Your task to perform on an android device: add a contact in the contacts app Image 0: 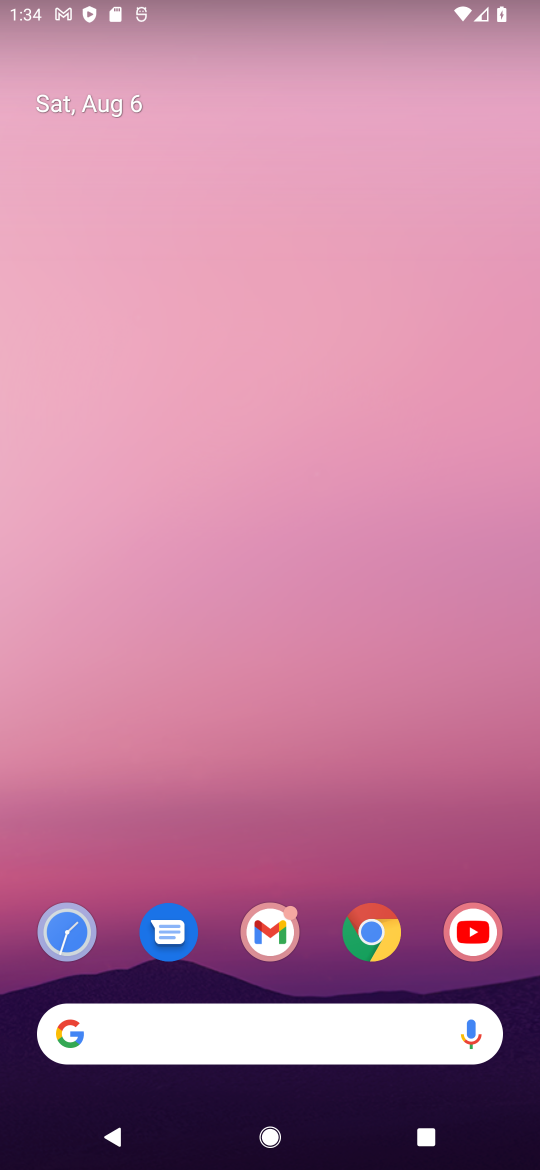
Step 0: drag from (252, 764) to (336, 64)
Your task to perform on an android device: add a contact in the contacts app Image 1: 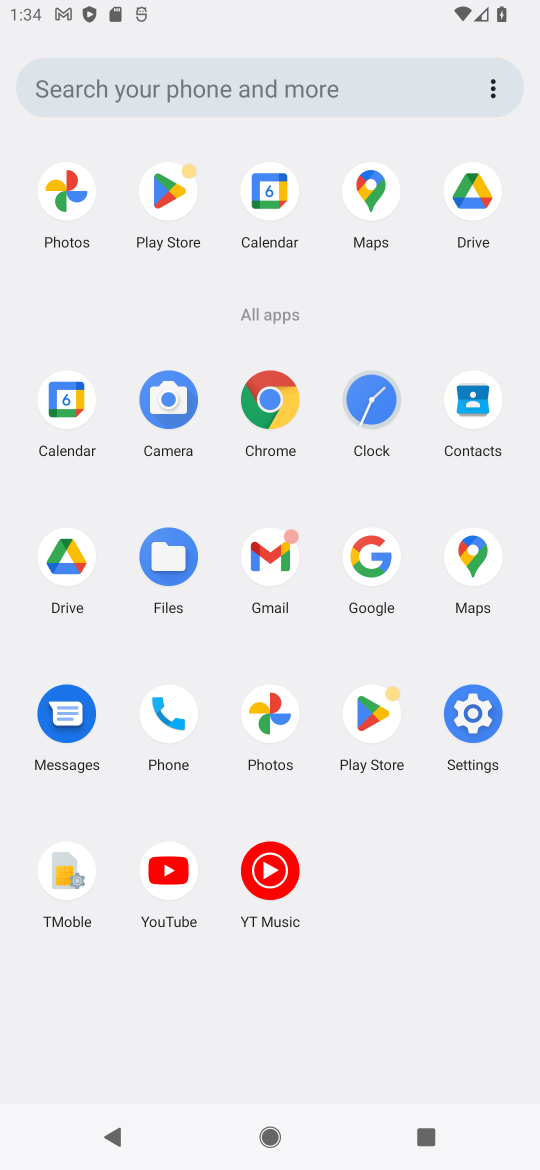
Step 1: click (475, 377)
Your task to perform on an android device: add a contact in the contacts app Image 2: 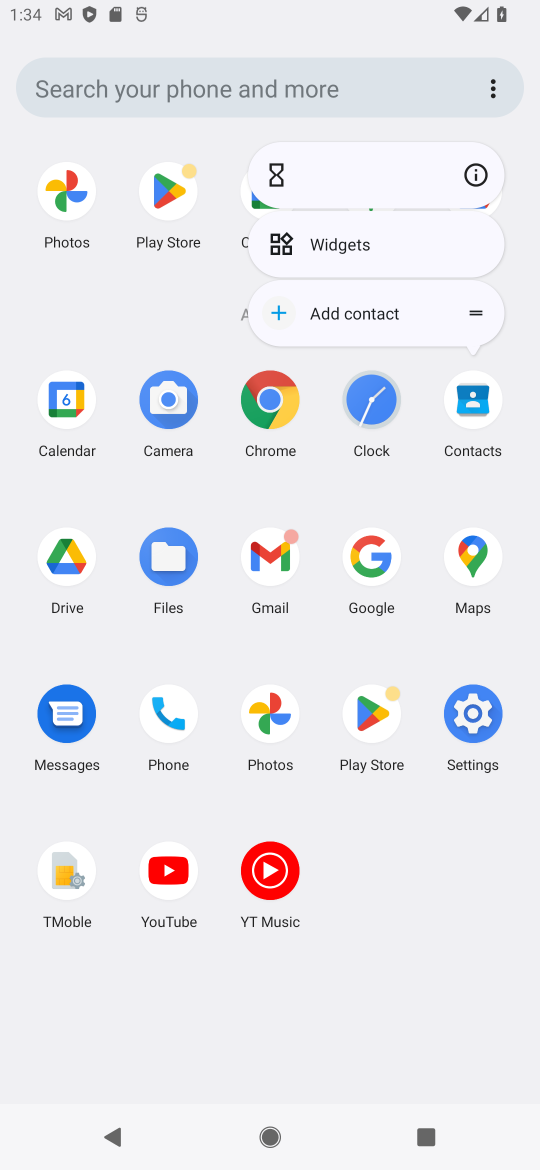
Step 2: click (478, 393)
Your task to perform on an android device: add a contact in the contacts app Image 3: 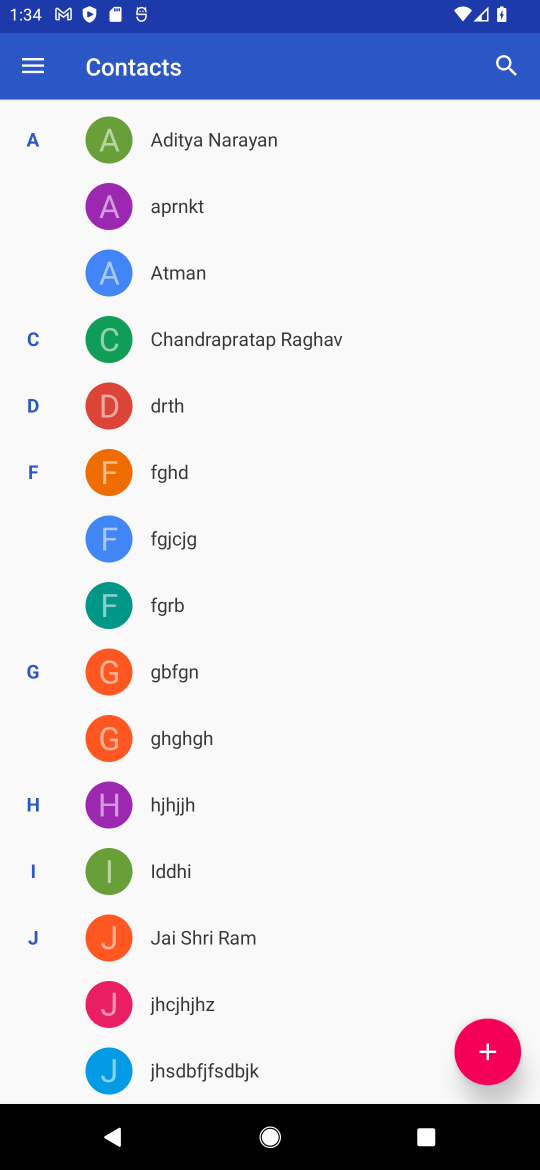
Step 3: click (503, 1026)
Your task to perform on an android device: add a contact in the contacts app Image 4: 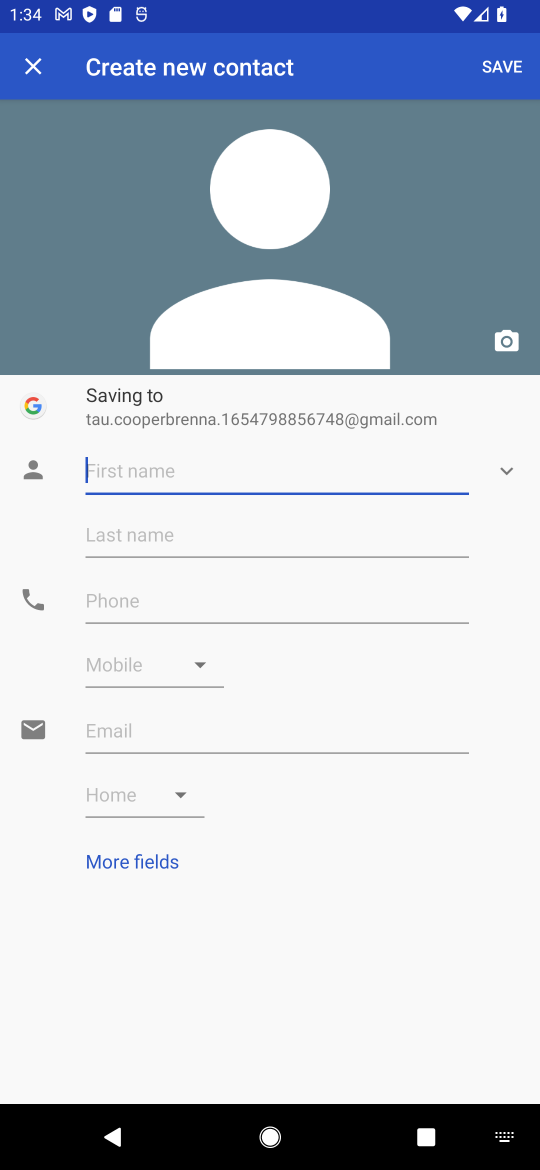
Step 4: click (176, 462)
Your task to perform on an android device: add a contact in the contacts app Image 5: 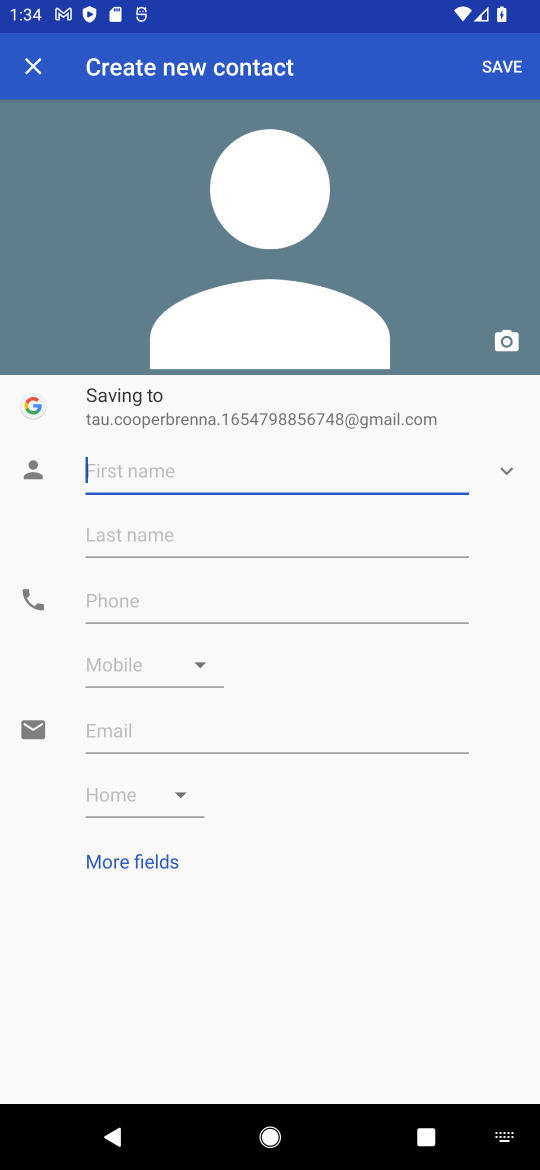
Step 5: type "9988"
Your task to perform on an android device: add a contact in the contacts app Image 6: 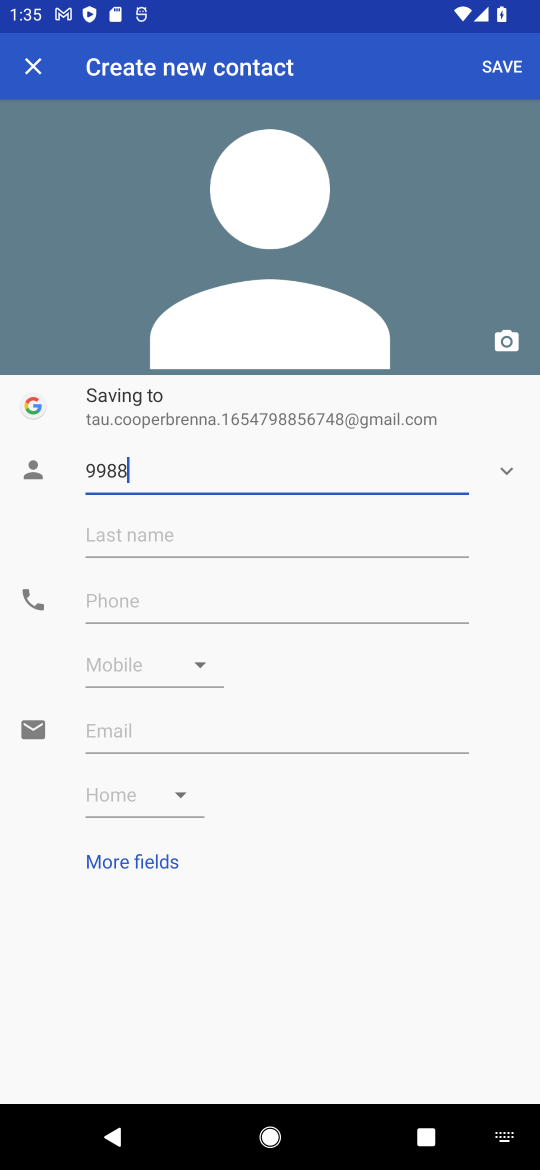
Step 6: type "rak"
Your task to perform on an android device: add a contact in the contacts app Image 7: 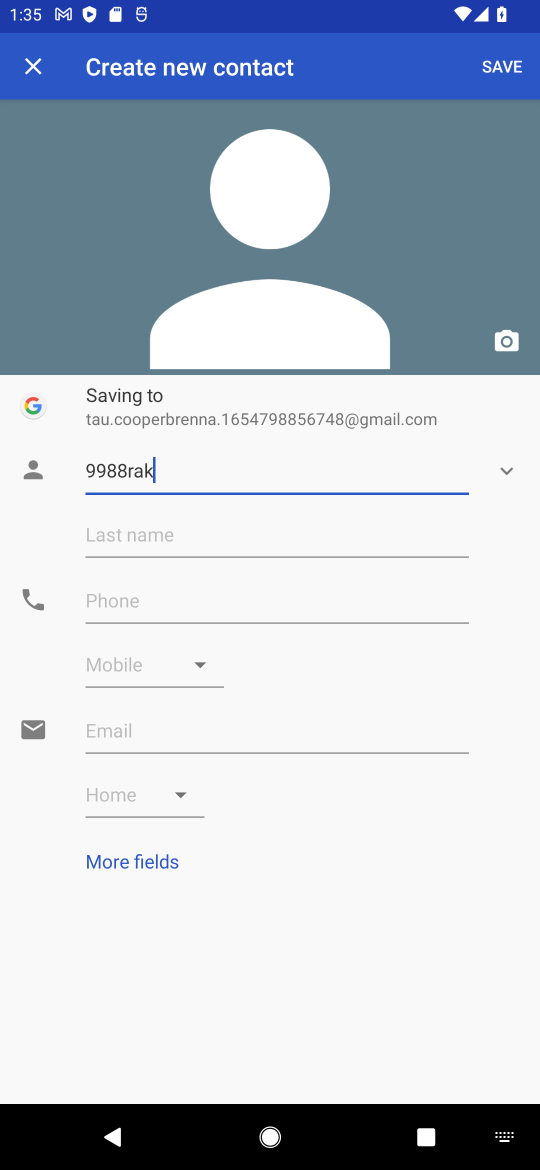
Step 7: click (153, 576)
Your task to perform on an android device: add a contact in the contacts app Image 8: 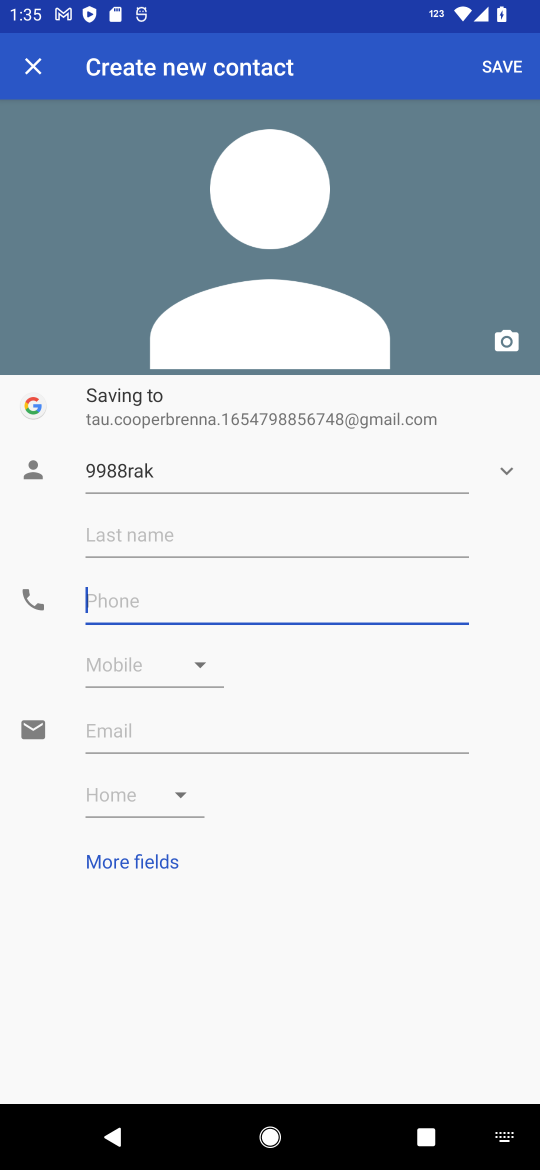
Step 8: type "88876"
Your task to perform on an android device: add a contact in the contacts app Image 9: 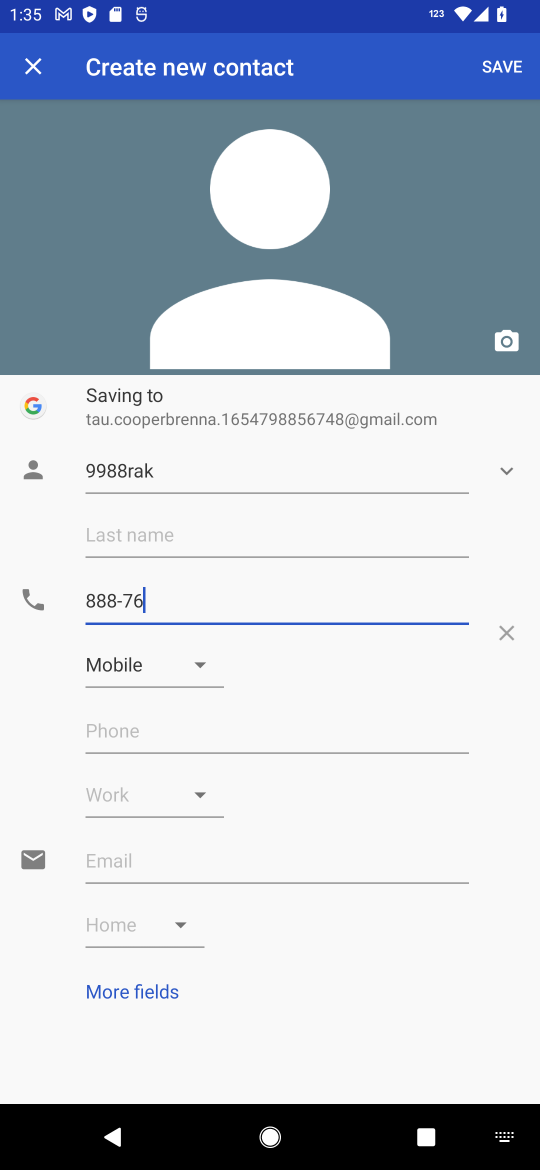
Step 9: click (510, 65)
Your task to perform on an android device: add a contact in the contacts app Image 10: 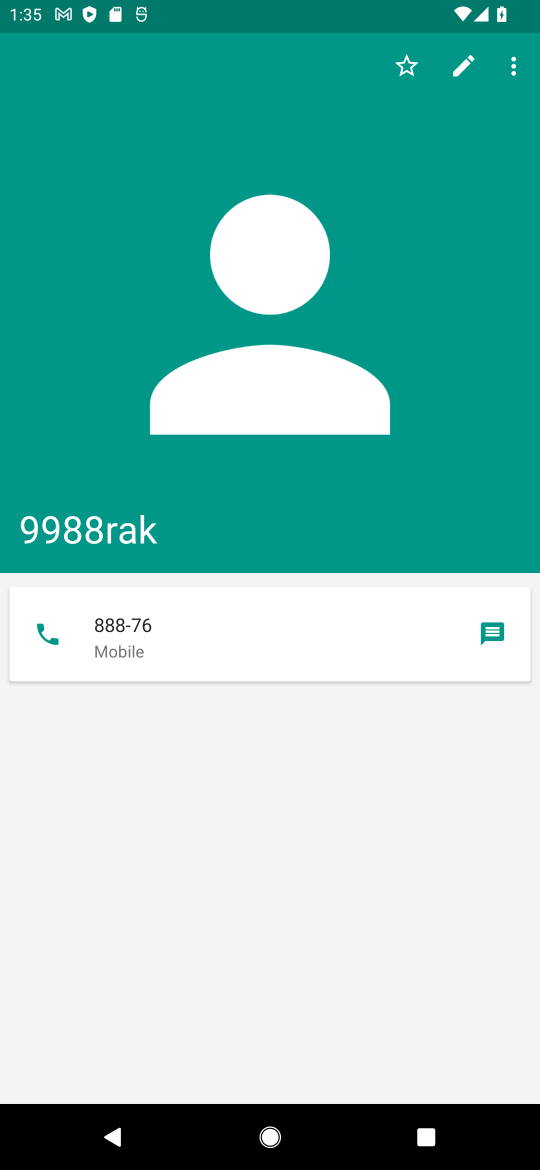
Step 10: task complete